Your task to perform on an android device: check battery use Image 0: 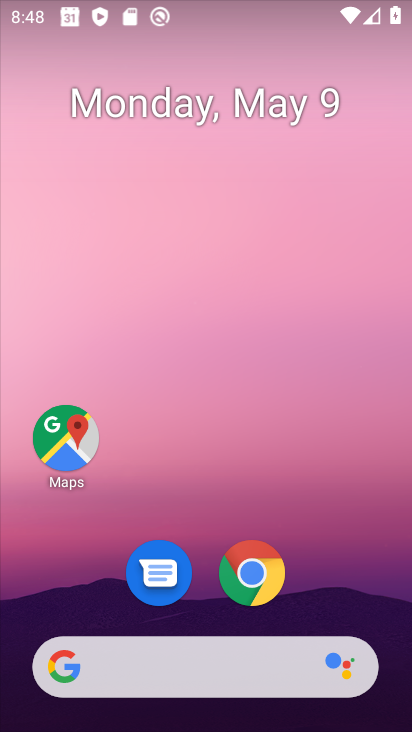
Step 0: drag from (329, 606) to (280, 11)
Your task to perform on an android device: check battery use Image 1: 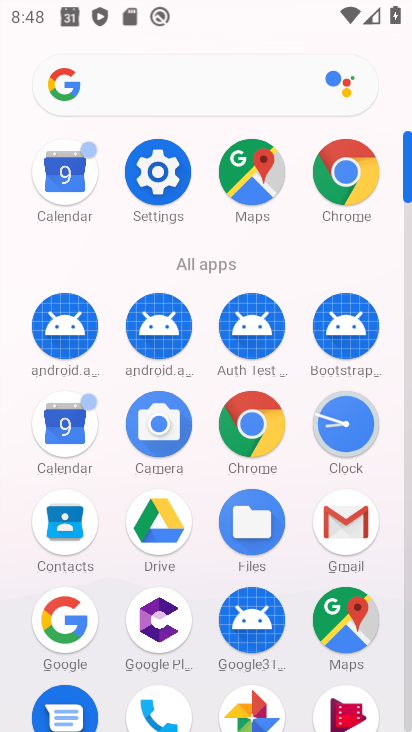
Step 1: click (163, 151)
Your task to perform on an android device: check battery use Image 2: 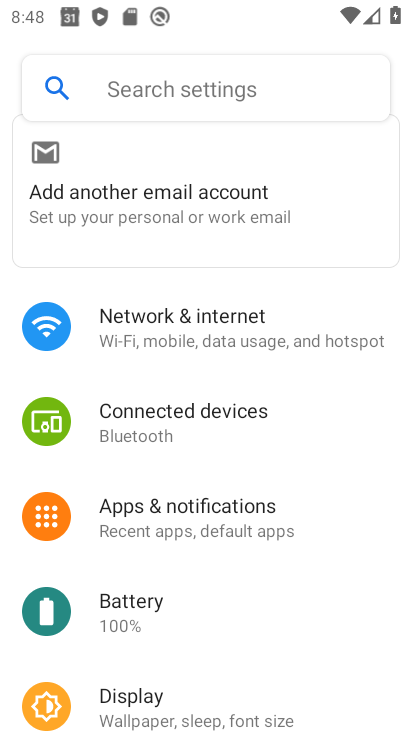
Step 2: click (141, 620)
Your task to perform on an android device: check battery use Image 3: 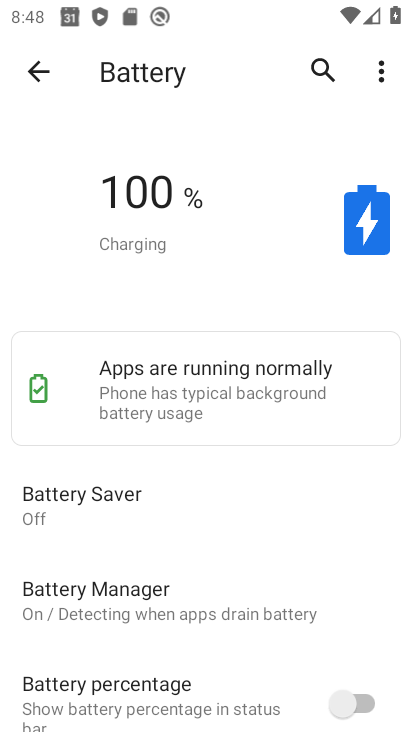
Step 3: click (378, 68)
Your task to perform on an android device: check battery use Image 4: 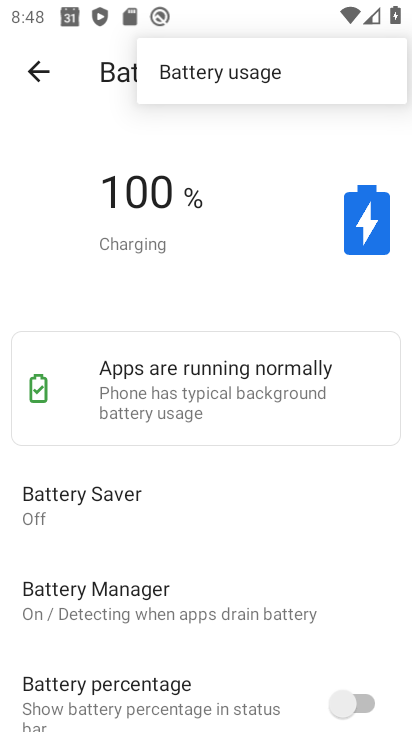
Step 4: click (204, 83)
Your task to perform on an android device: check battery use Image 5: 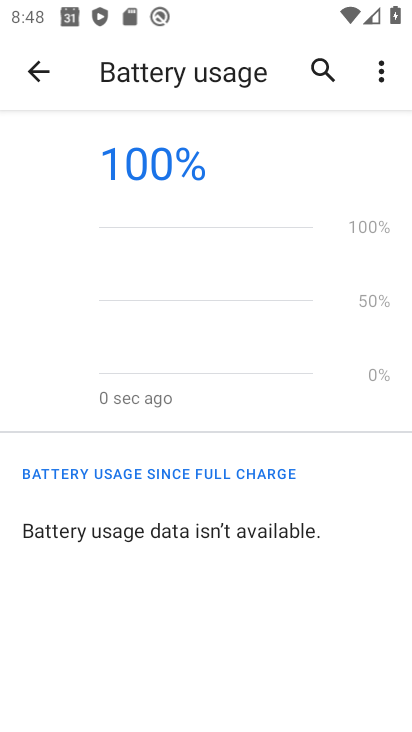
Step 5: task complete